Your task to perform on an android device: Open Google Chrome and click the shortcut for Amazon.com Image 0: 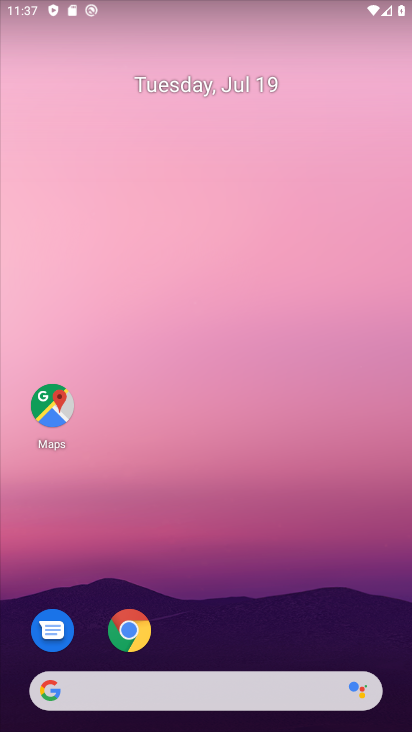
Step 0: drag from (174, 636) to (293, 174)
Your task to perform on an android device: Open Google Chrome and click the shortcut for Amazon.com Image 1: 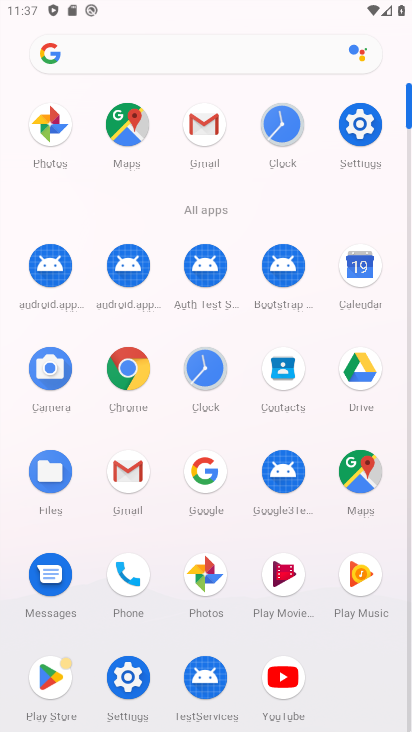
Step 1: click (121, 383)
Your task to perform on an android device: Open Google Chrome and click the shortcut for Amazon.com Image 2: 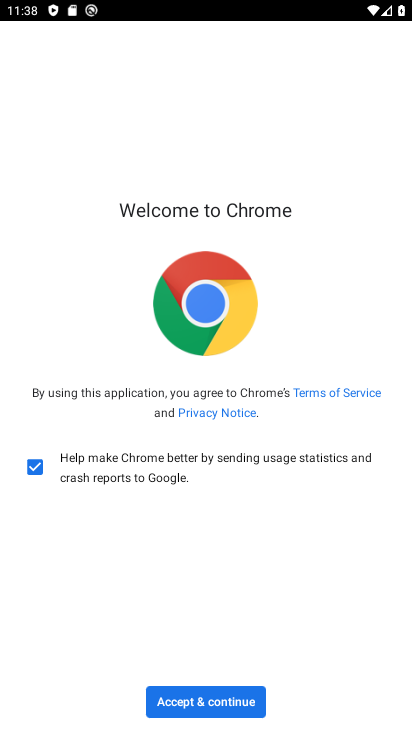
Step 2: click (214, 716)
Your task to perform on an android device: Open Google Chrome and click the shortcut for Amazon.com Image 3: 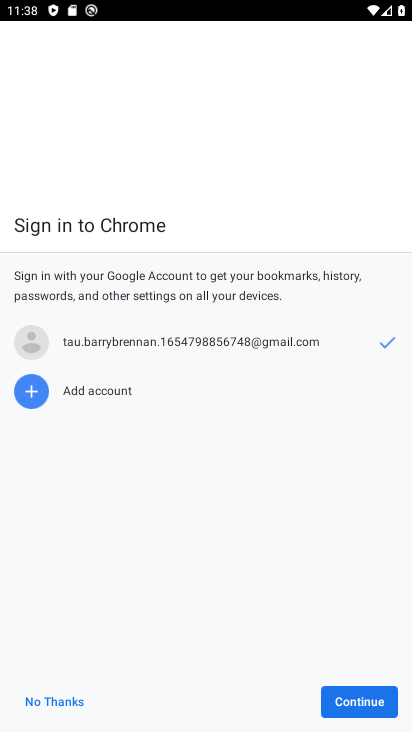
Step 3: click (358, 692)
Your task to perform on an android device: Open Google Chrome and click the shortcut for Amazon.com Image 4: 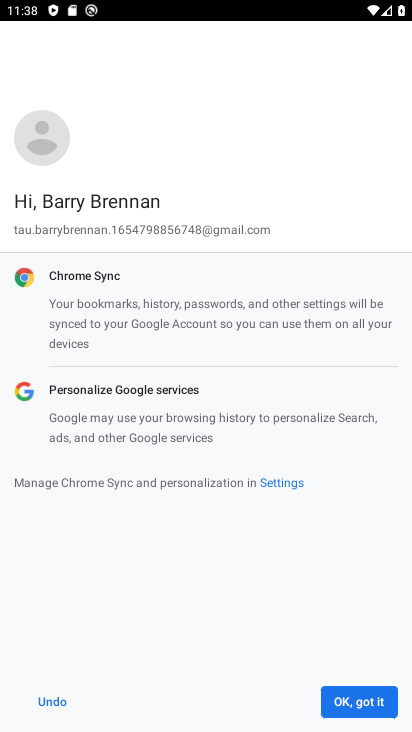
Step 4: click (361, 698)
Your task to perform on an android device: Open Google Chrome and click the shortcut for Amazon.com Image 5: 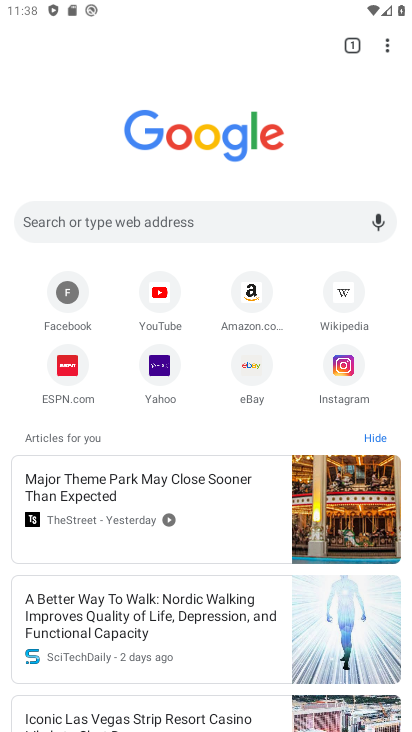
Step 5: click (260, 307)
Your task to perform on an android device: Open Google Chrome and click the shortcut for Amazon.com Image 6: 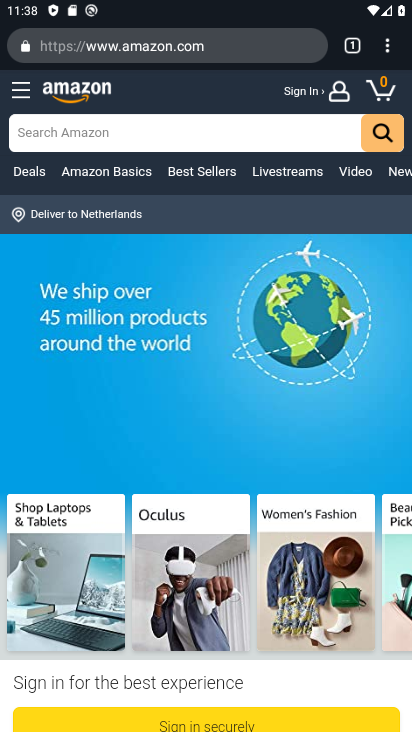
Step 6: task complete